Your task to perform on an android device: Show me productivity apps on the Play Store Image 0: 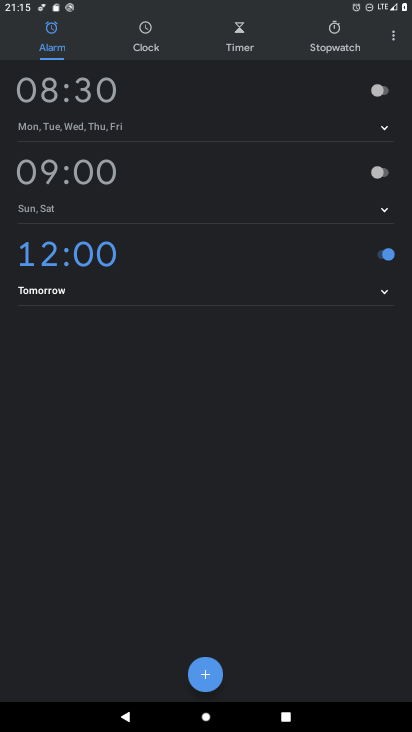
Step 0: press home button
Your task to perform on an android device: Show me productivity apps on the Play Store Image 1: 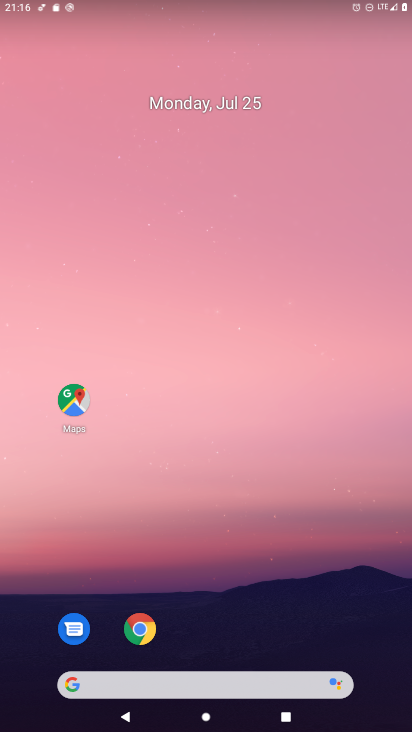
Step 1: drag from (184, 679) to (183, 86)
Your task to perform on an android device: Show me productivity apps on the Play Store Image 2: 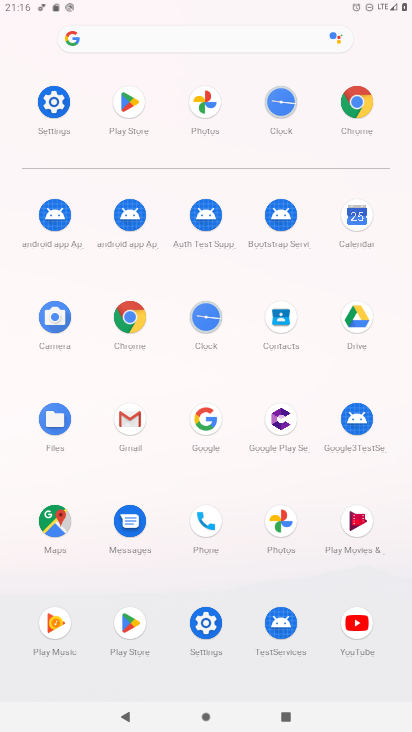
Step 2: click (128, 101)
Your task to perform on an android device: Show me productivity apps on the Play Store Image 3: 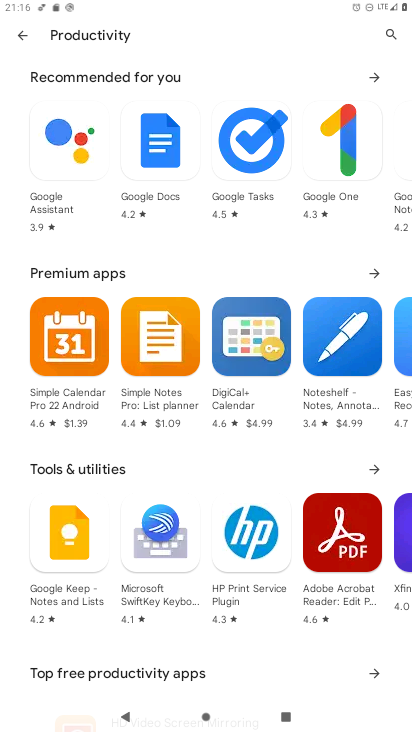
Step 3: task complete